Your task to perform on an android device: Show me recent news Image 0: 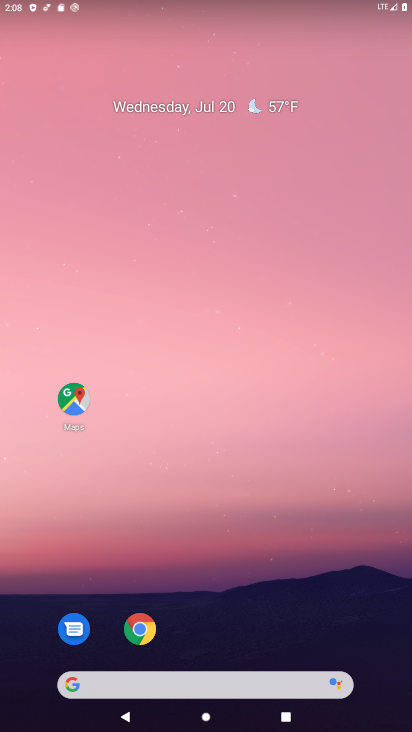
Step 0: drag from (2, 299) to (409, 313)
Your task to perform on an android device: Show me recent news Image 1: 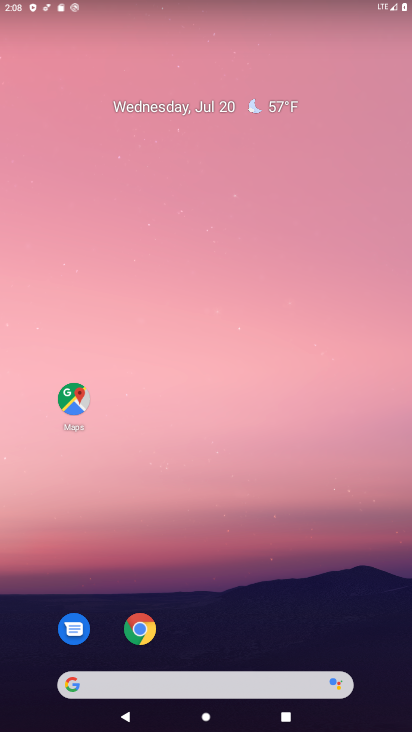
Step 1: task complete